Your task to perform on an android device: set an alarm Image 0: 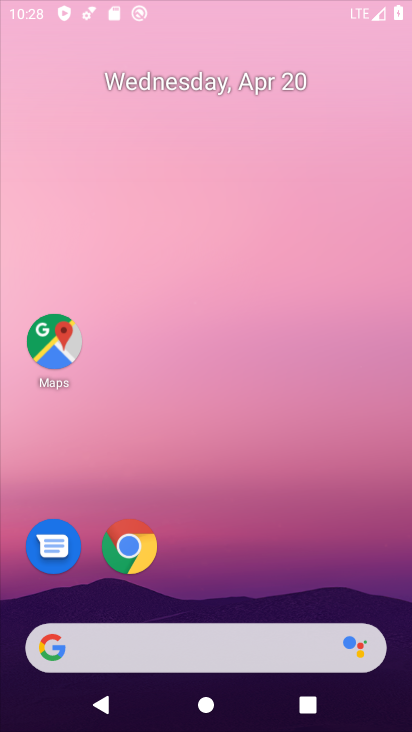
Step 0: click (63, 56)
Your task to perform on an android device: set an alarm Image 1: 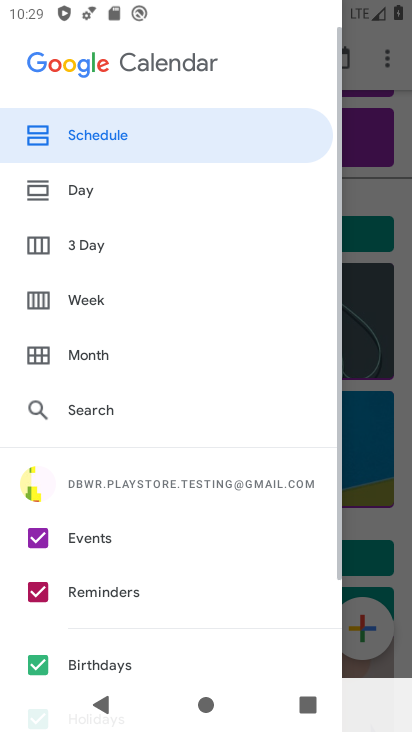
Step 1: press home button
Your task to perform on an android device: set an alarm Image 2: 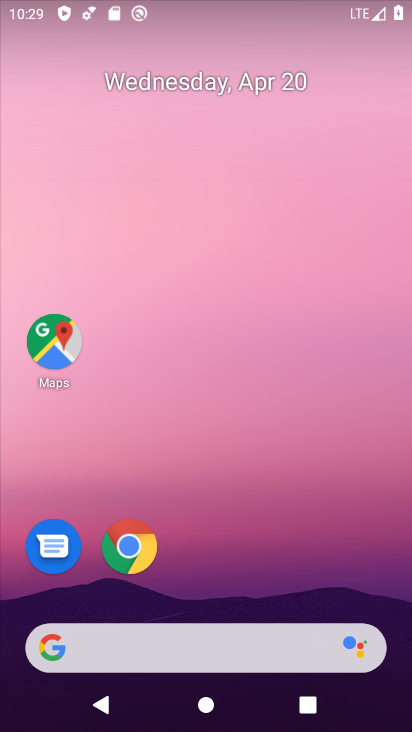
Step 2: drag from (219, 544) to (200, 172)
Your task to perform on an android device: set an alarm Image 3: 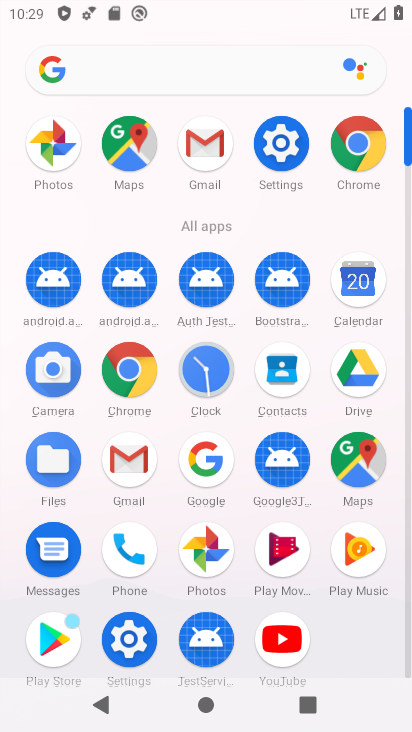
Step 3: click (210, 380)
Your task to perform on an android device: set an alarm Image 4: 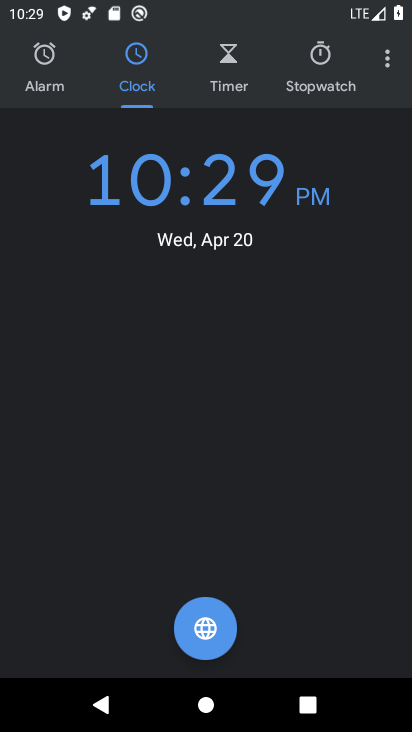
Step 4: click (32, 87)
Your task to perform on an android device: set an alarm Image 5: 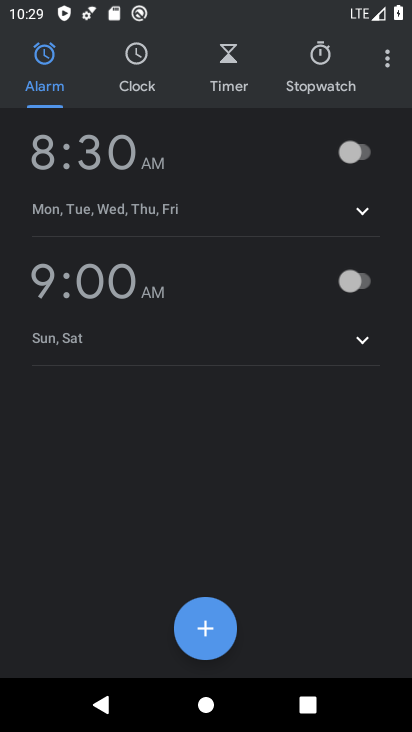
Step 5: click (201, 646)
Your task to perform on an android device: set an alarm Image 6: 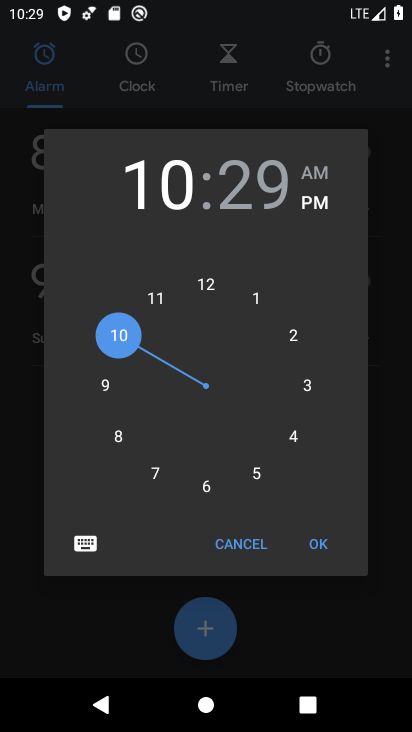
Step 6: click (320, 548)
Your task to perform on an android device: set an alarm Image 7: 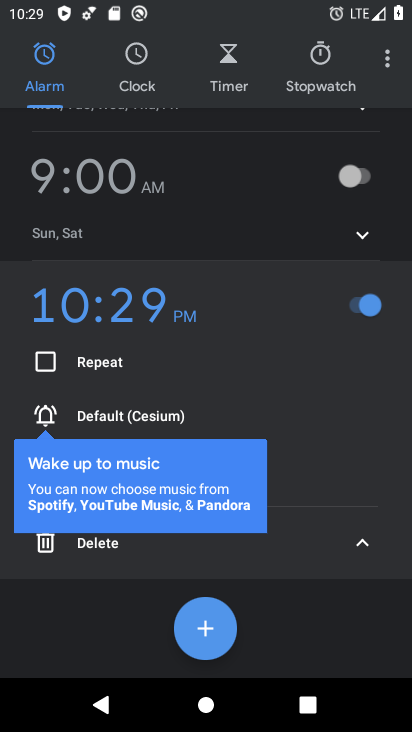
Step 7: click (361, 552)
Your task to perform on an android device: set an alarm Image 8: 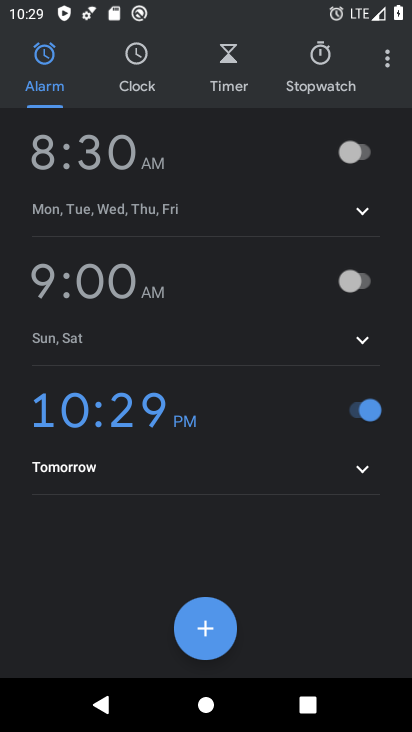
Step 8: task complete